Your task to perform on an android device: toggle improve location accuracy Image 0: 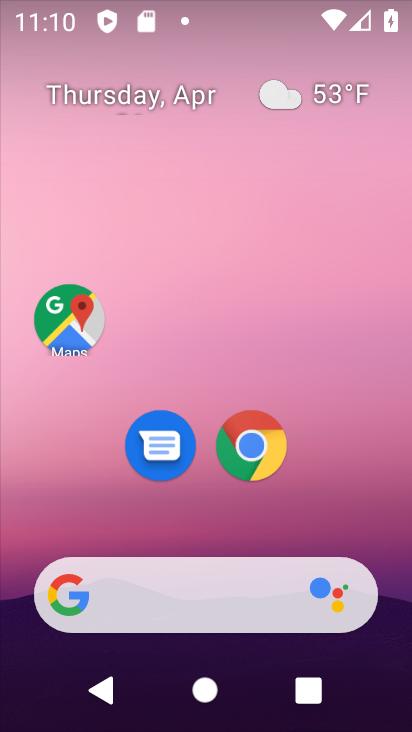
Step 0: drag from (125, 590) to (208, 178)
Your task to perform on an android device: toggle improve location accuracy Image 1: 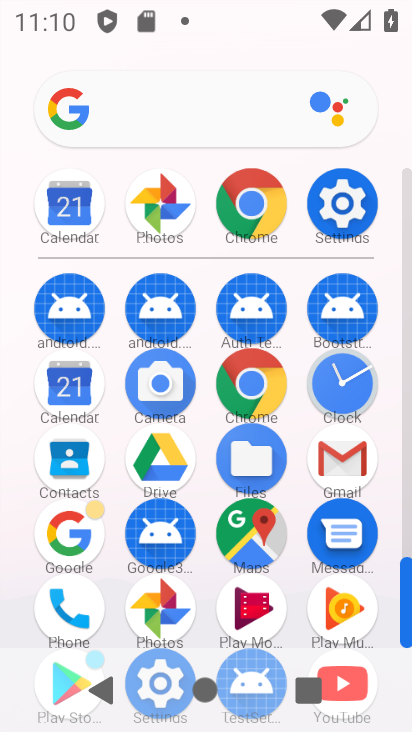
Step 1: click (335, 211)
Your task to perform on an android device: toggle improve location accuracy Image 2: 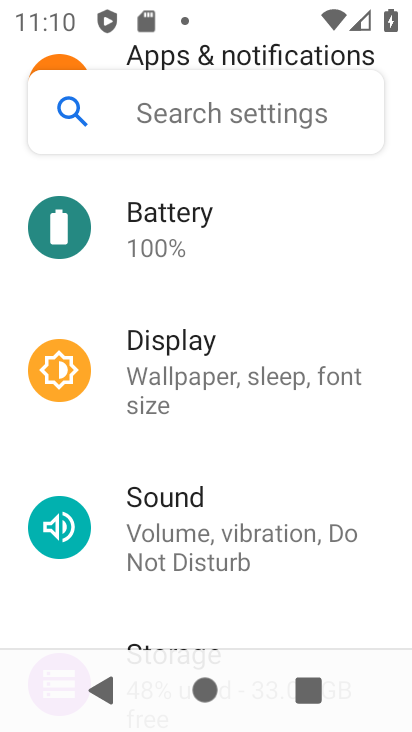
Step 2: drag from (274, 237) to (271, 612)
Your task to perform on an android device: toggle improve location accuracy Image 3: 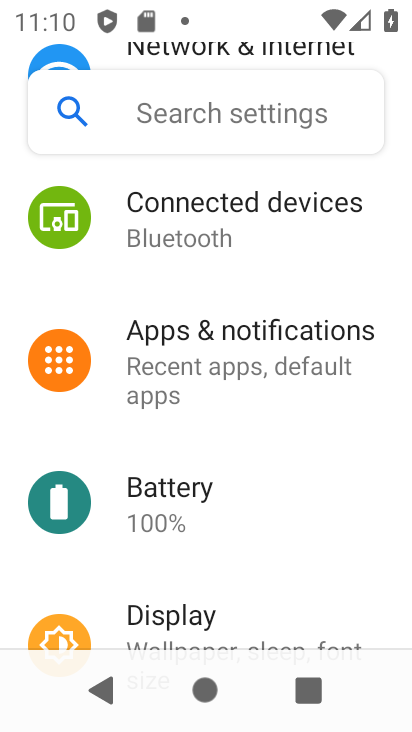
Step 3: drag from (277, 257) to (265, 576)
Your task to perform on an android device: toggle improve location accuracy Image 4: 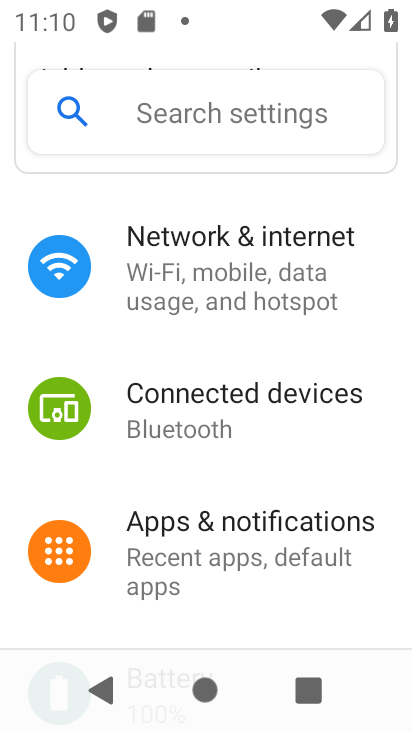
Step 4: drag from (198, 590) to (273, 302)
Your task to perform on an android device: toggle improve location accuracy Image 5: 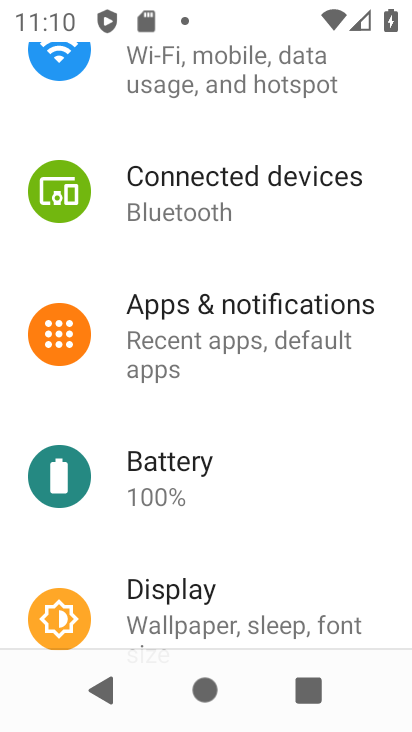
Step 5: drag from (210, 577) to (271, 163)
Your task to perform on an android device: toggle improve location accuracy Image 6: 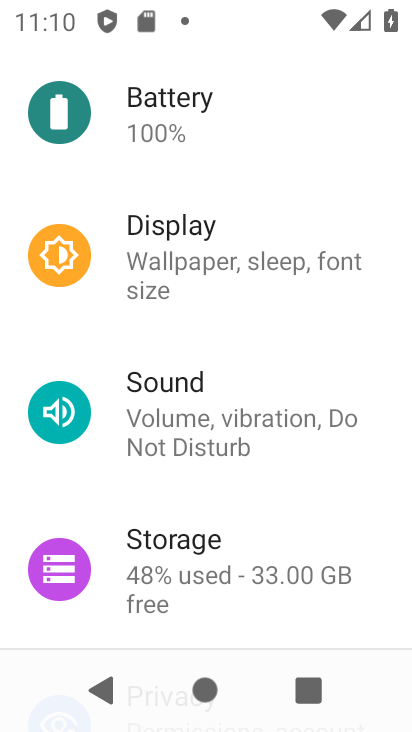
Step 6: drag from (191, 566) to (307, 154)
Your task to perform on an android device: toggle improve location accuracy Image 7: 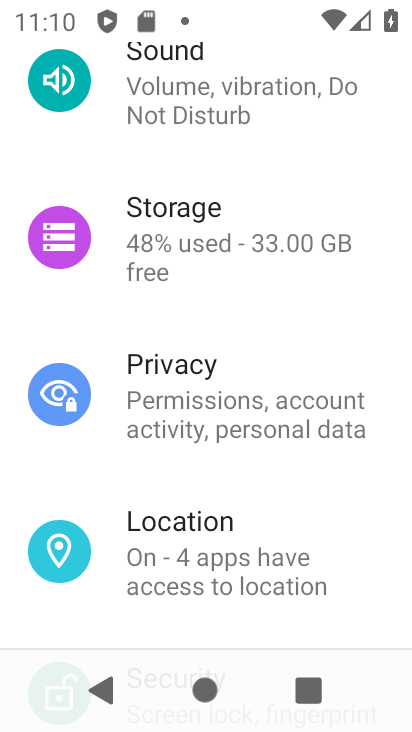
Step 7: click (178, 520)
Your task to perform on an android device: toggle improve location accuracy Image 8: 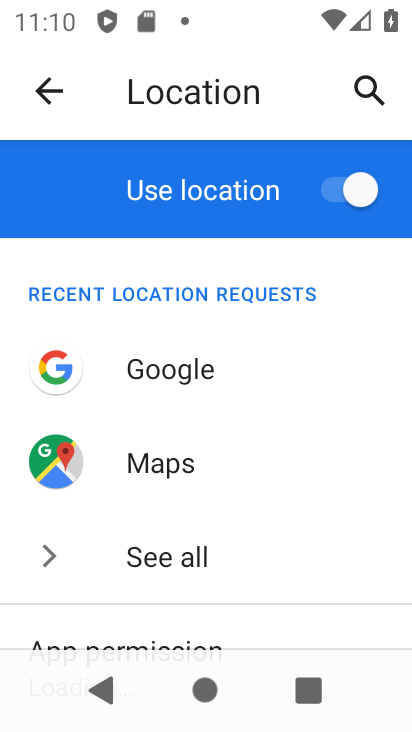
Step 8: drag from (203, 605) to (290, 264)
Your task to perform on an android device: toggle improve location accuracy Image 9: 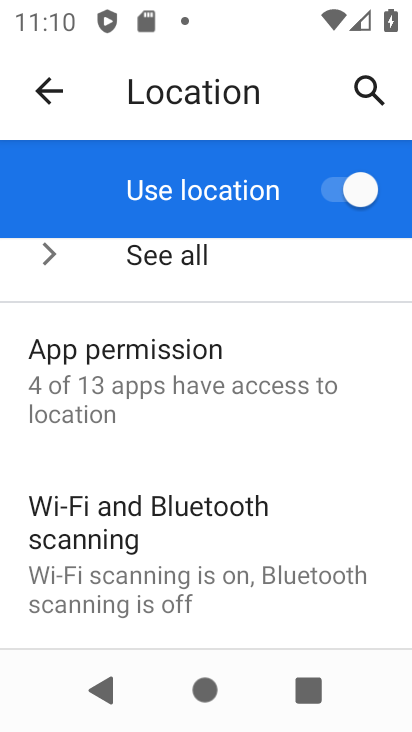
Step 9: drag from (159, 536) to (306, 175)
Your task to perform on an android device: toggle improve location accuracy Image 10: 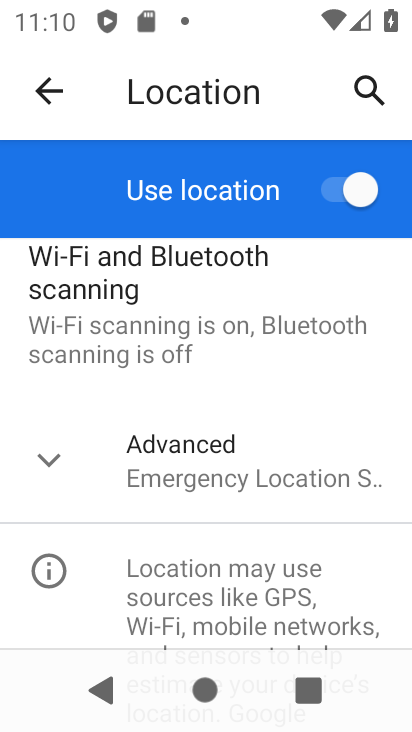
Step 10: click (132, 462)
Your task to perform on an android device: toggle improve location accuracy Image 11: 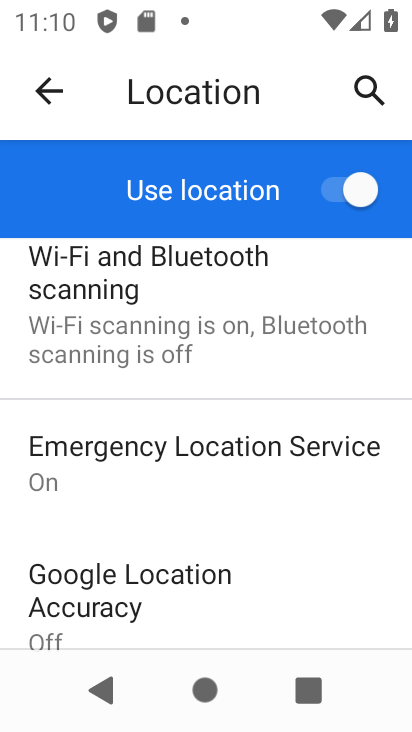
Step 11: drag from (167, 548) to (278, 315)
Your task to perform on an android device: toggle improve location accuracy Image 12: 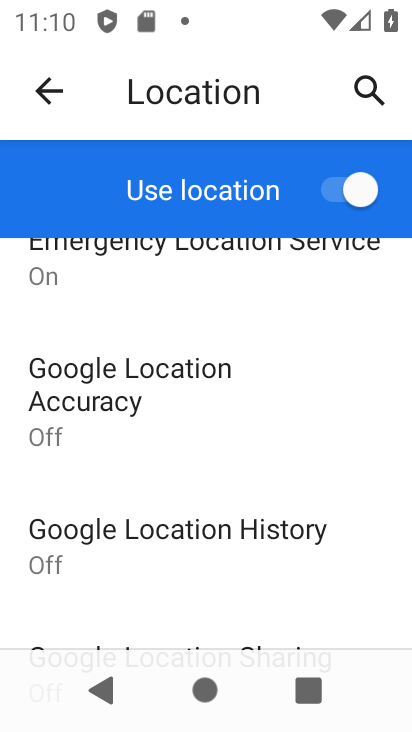
Step 12: click (145, 384)
Your task to perform on an android device: toggle improve location accuracy Image 13: 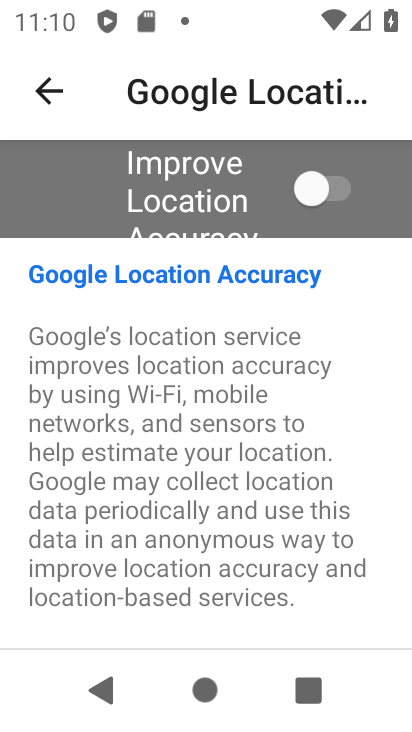
Step 13: click (333, 193)
Your task to perform on an android device: toggle improve location accuracy Image 14: 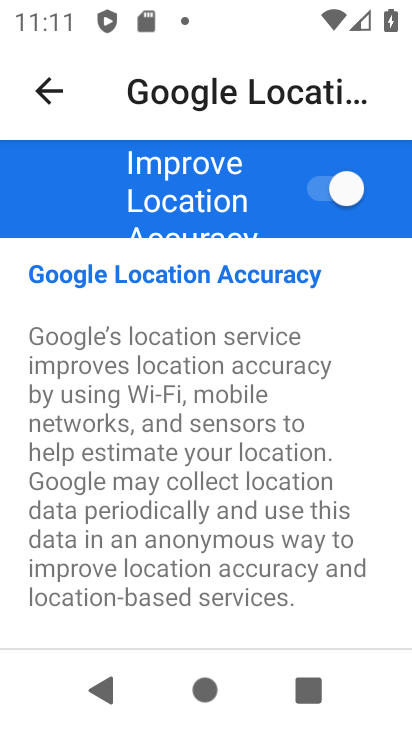
Step 14: task complete